Your task to perform on an android device: check the backup settings in the google photos Image 0: 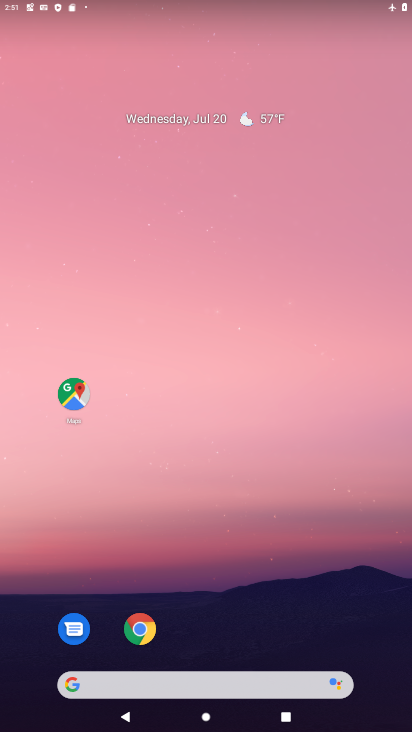
Step 0: drag from (173, 645) to (197, 242)
Your task to perform on an android device: check the backup settings in the google photos Image 1: 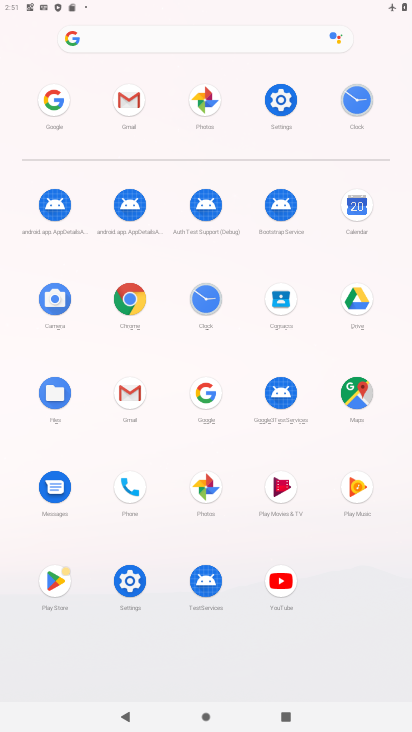
Step 1: click (198, 115)
Your task to perform on an android device: check the backup settings in the google photos Image 2: 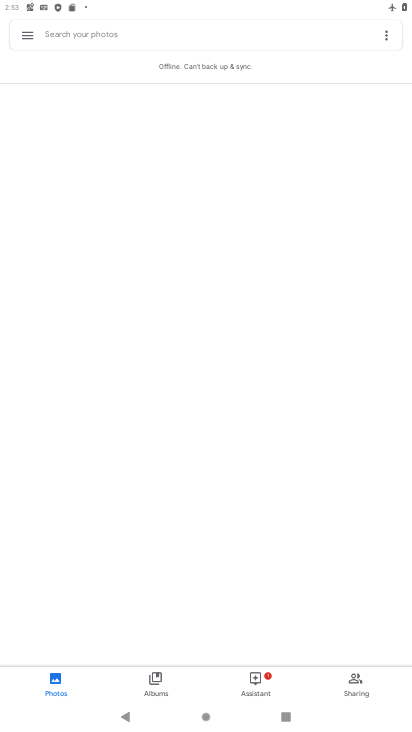
Step 2: press home button
Your task to perform on an android device: check the backup settings in the google photos Image 3: 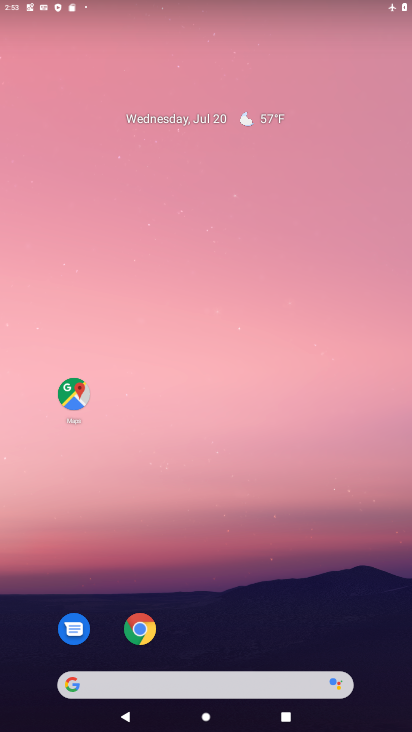
Step 3: drag from (229, 629) to (194, 166)
Your task to perform on an android device: check the backup settings in the google photos Image 4: 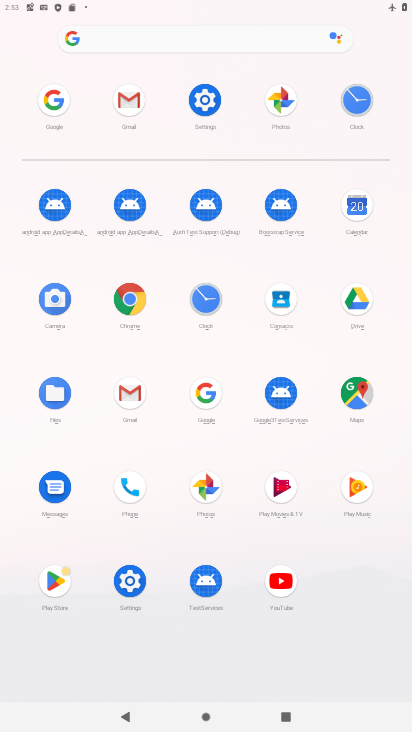
Step 4: click (271, 106)
Your task to perform on an android device: check the backup settings in the google photos Image 5: 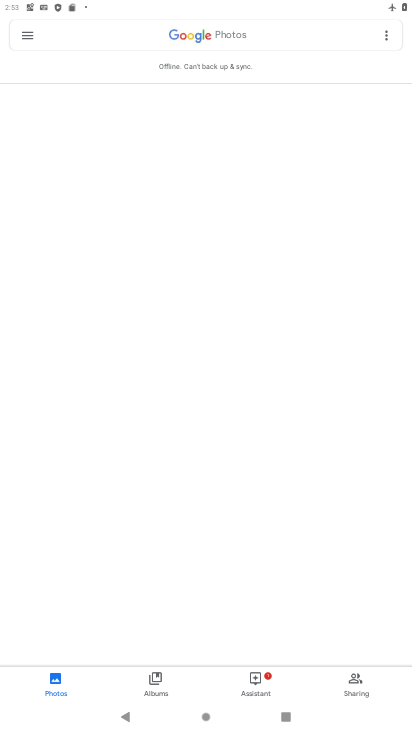
Step 5: click (26, 47)
Your task to perform on an android device: check the backup settings in the google photos Image 6: 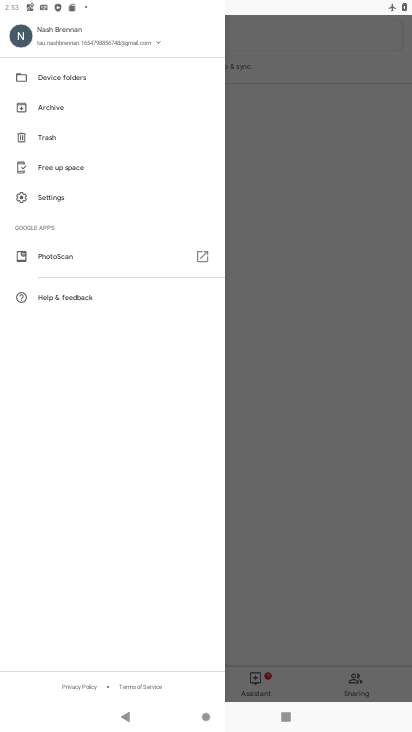
Step 6: click (86, 209)
Your task to perform on an android device: check the backup settings in the google photos Image 7: 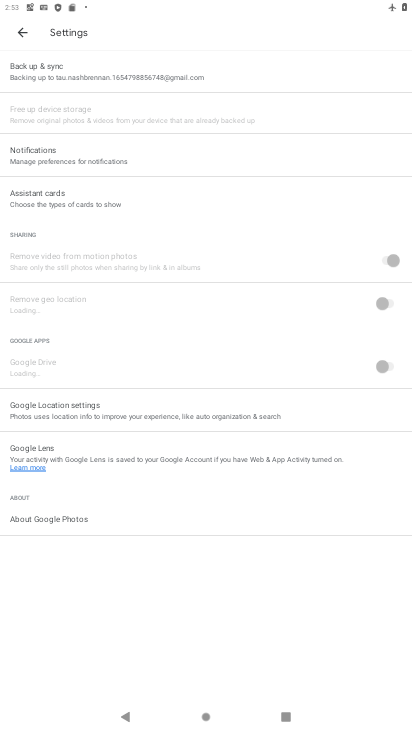
Step 7: click (85, 85)
Your task to perform on an android device: check the backup settings in the google photos Image 8: 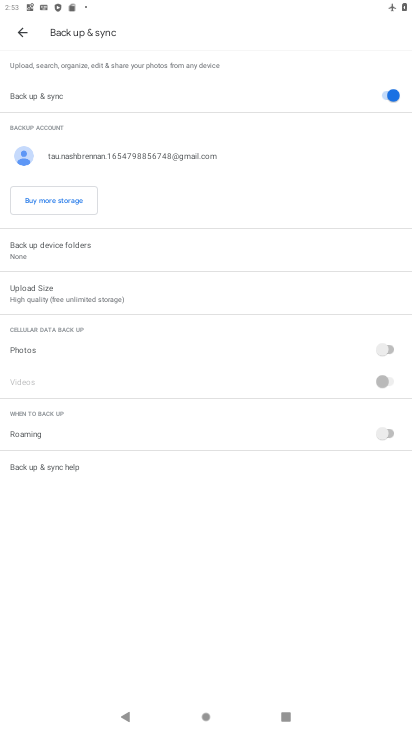
Step 8: click (386, 93)
Your task to perform on an android device: check the backup settings in the google photos Image 9: 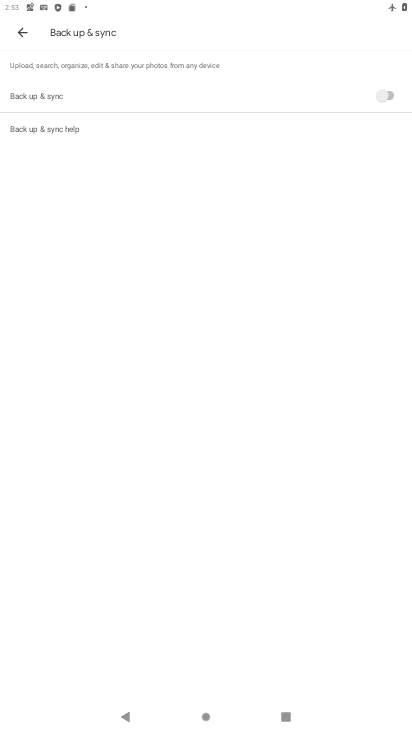
Step 9: task complete